Your task to perform on an android device: Do I have any events tomorrow? Image 0: 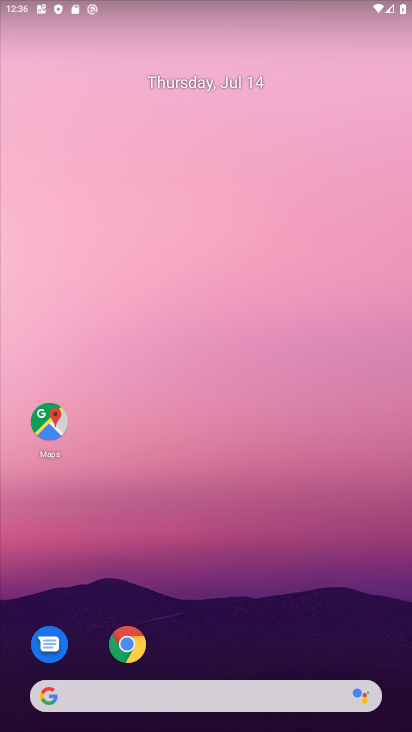
Step 0: drag from (251, 684) to (122, 10)
Your task to perform on an android device: Do I have any events tomorrow? Image 1: 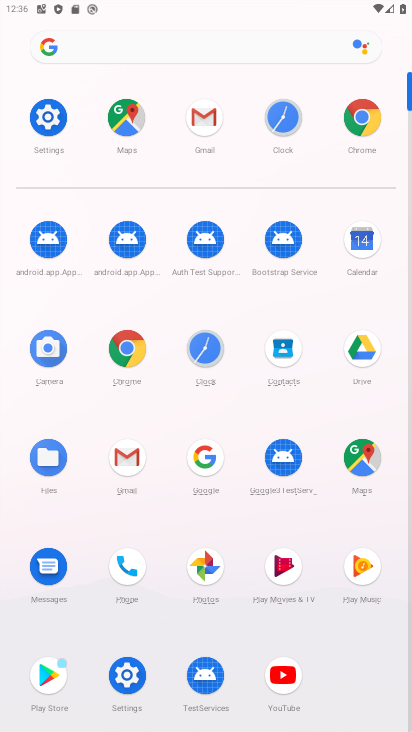
Step 1: click (363, 235)
Your task to perform on an android device: Do I have any events tomorrow? Image 2: 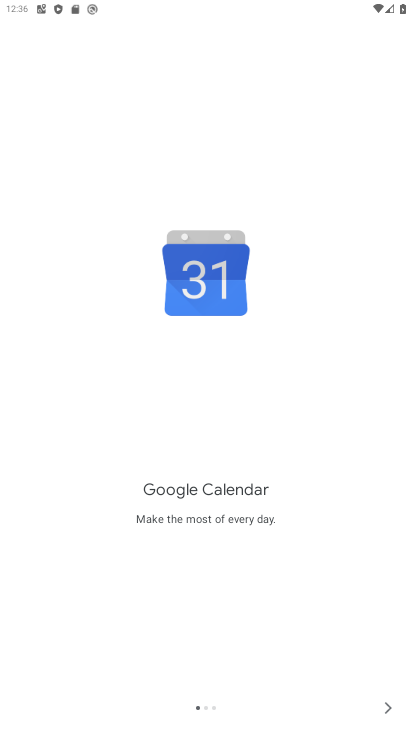
Step 2: click (386, 703)
Your task to perform on an android device: Do I have any events tomorrow? Image 3: 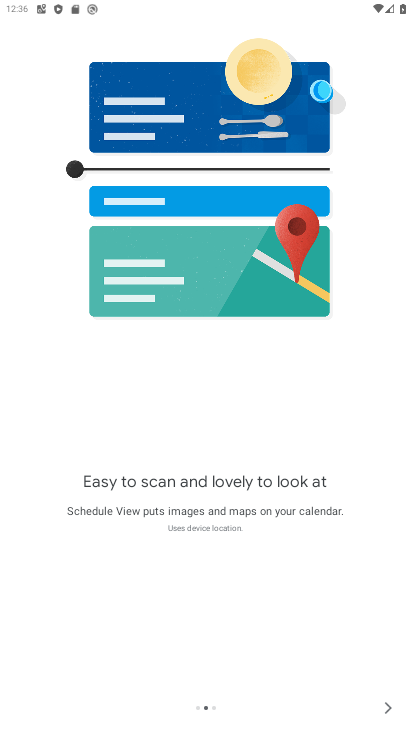
Step 3: click (384, 704)
Your task to perform on an android device: Do I have any events tomorrow? Image 4: 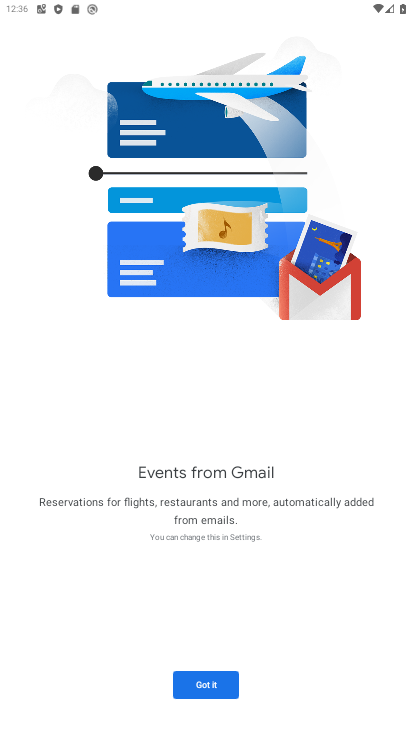
Step 4: click (204, 684)
Your task to perform on an android device: Do I have any events tomorrow? Image 5: 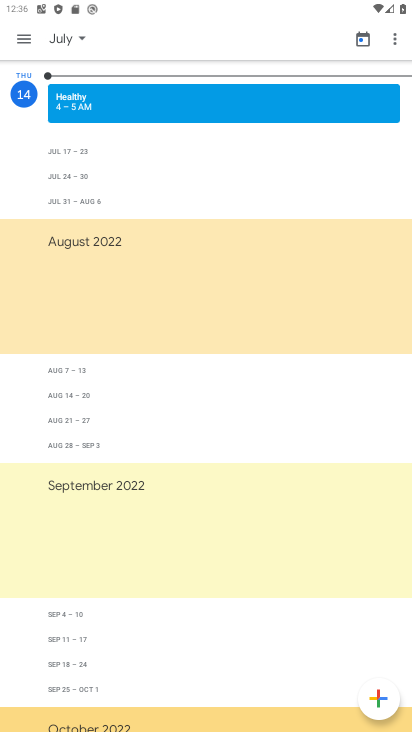
Step 5: click (85, 44)
Your task to perform on an android device: Do I have any events tomorrow? Image 6: 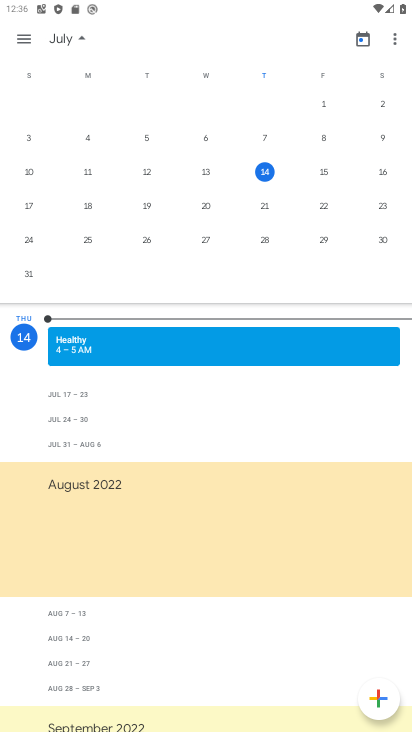
Step 6: click (325, 164)
Your task to perform on an android device: Do I have any events tomorrow? Image 7: 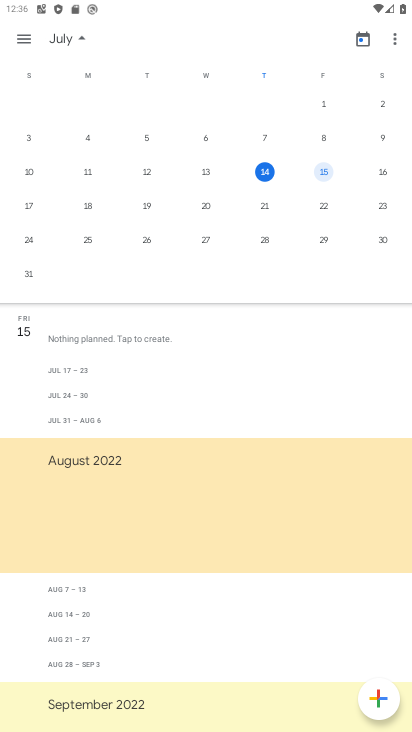
Step 7: task complete